Your task to perform on an android device: toggle location history Image 0: 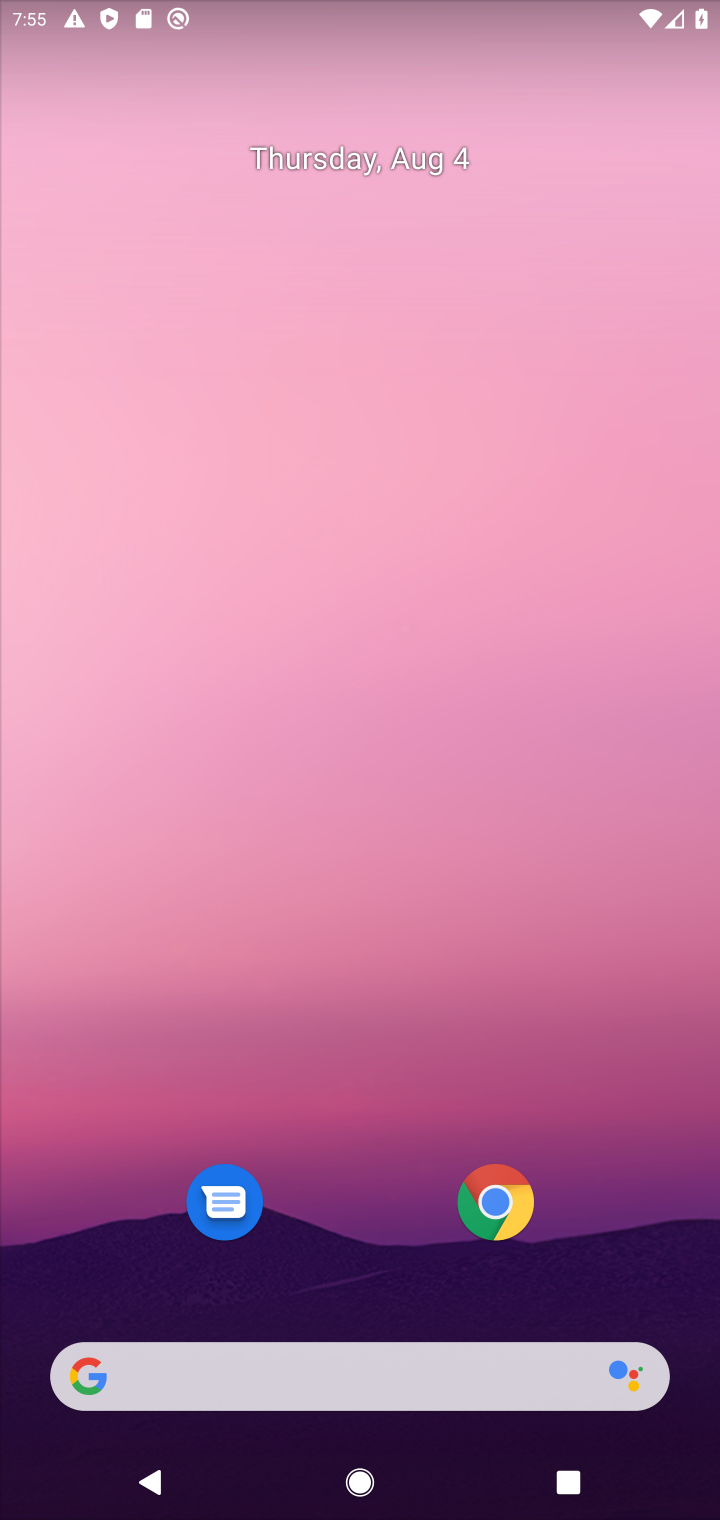
Step 0: drag from (354, 1273) to (350, 396)
Your task to perform on an android device: toggle location history Image 1: 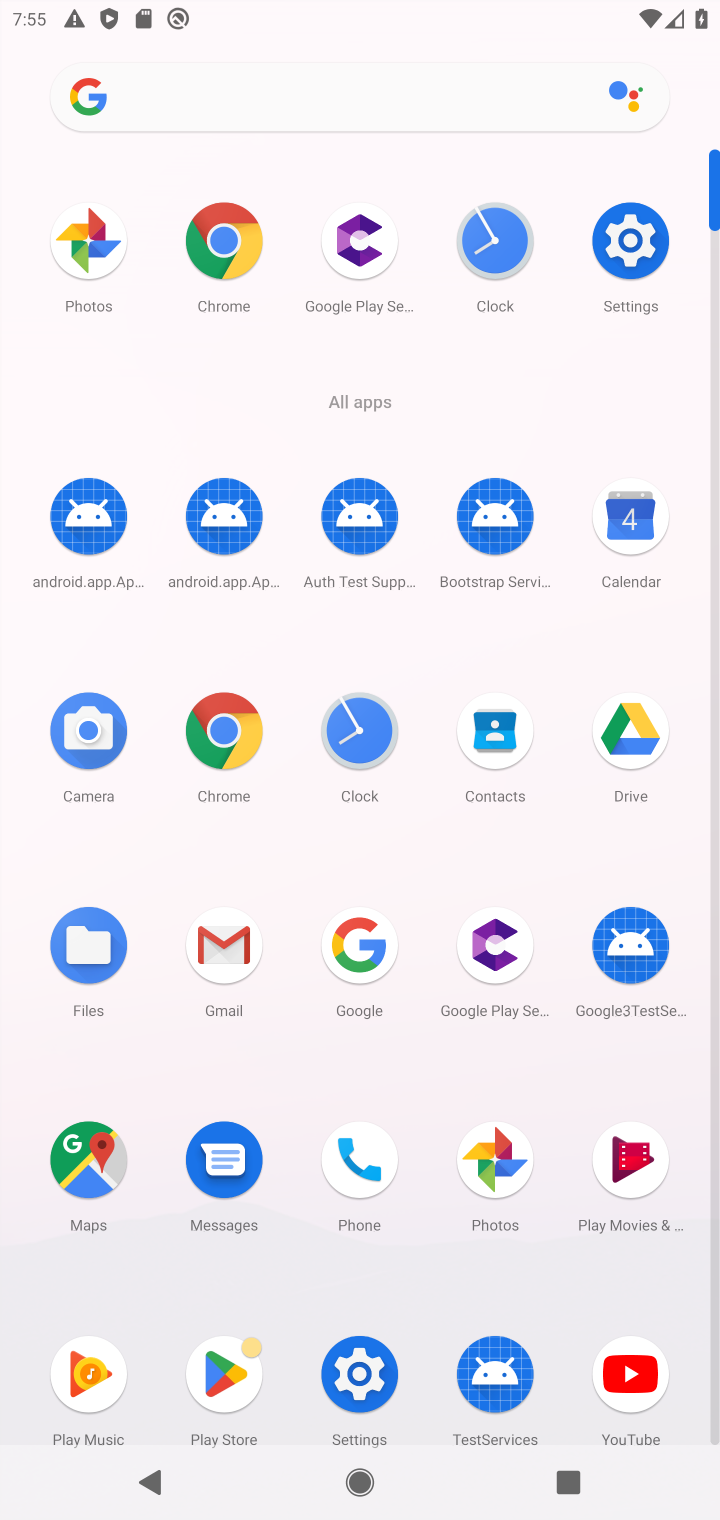
Step 1: click (640, 235)
Your task to perform on an android device: toggle location history Image 2: 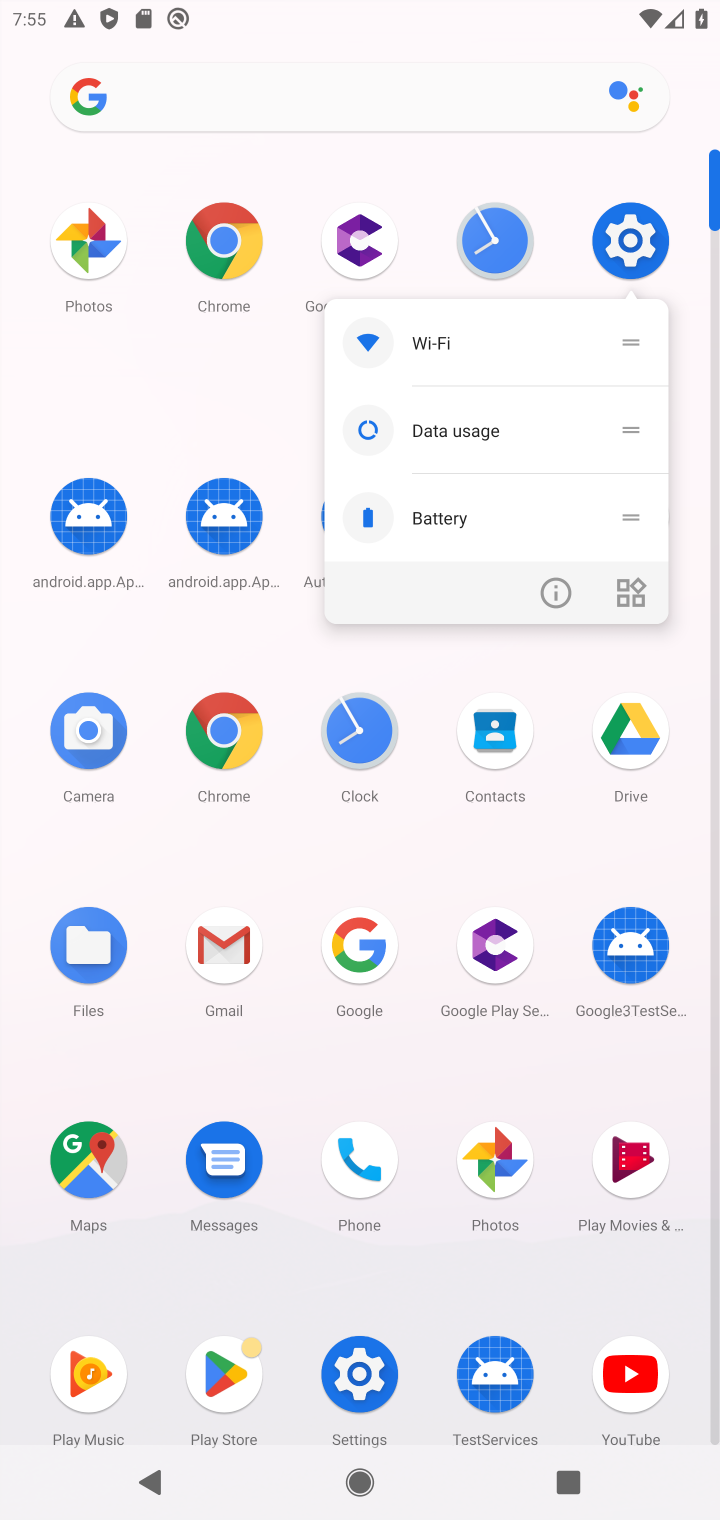
Step 2: click (622, 240)
Your task to perform on an android device: toggle location history Image 3: 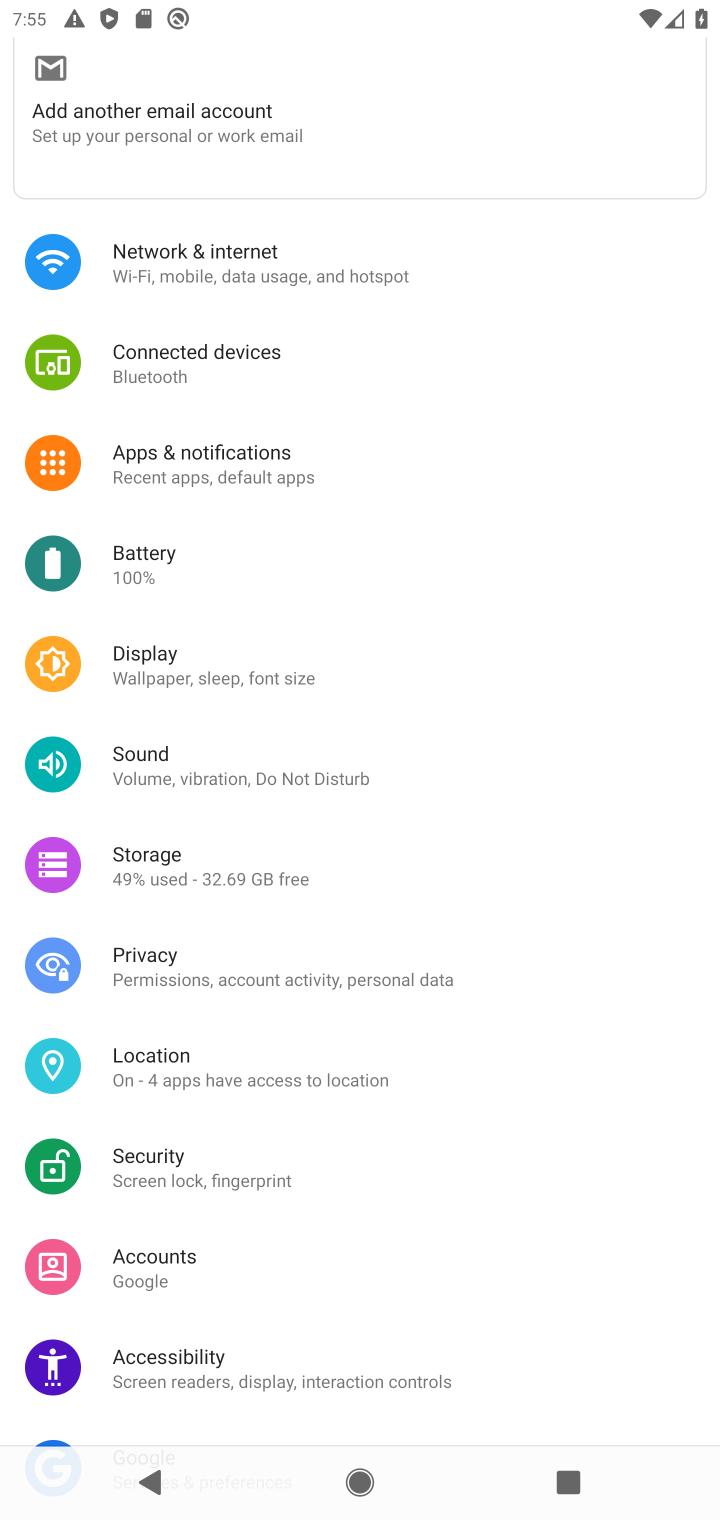
Step 3: drag from (214, 903) to (243, 468)
Your task to perform on an android device: toggle location history Image 4: 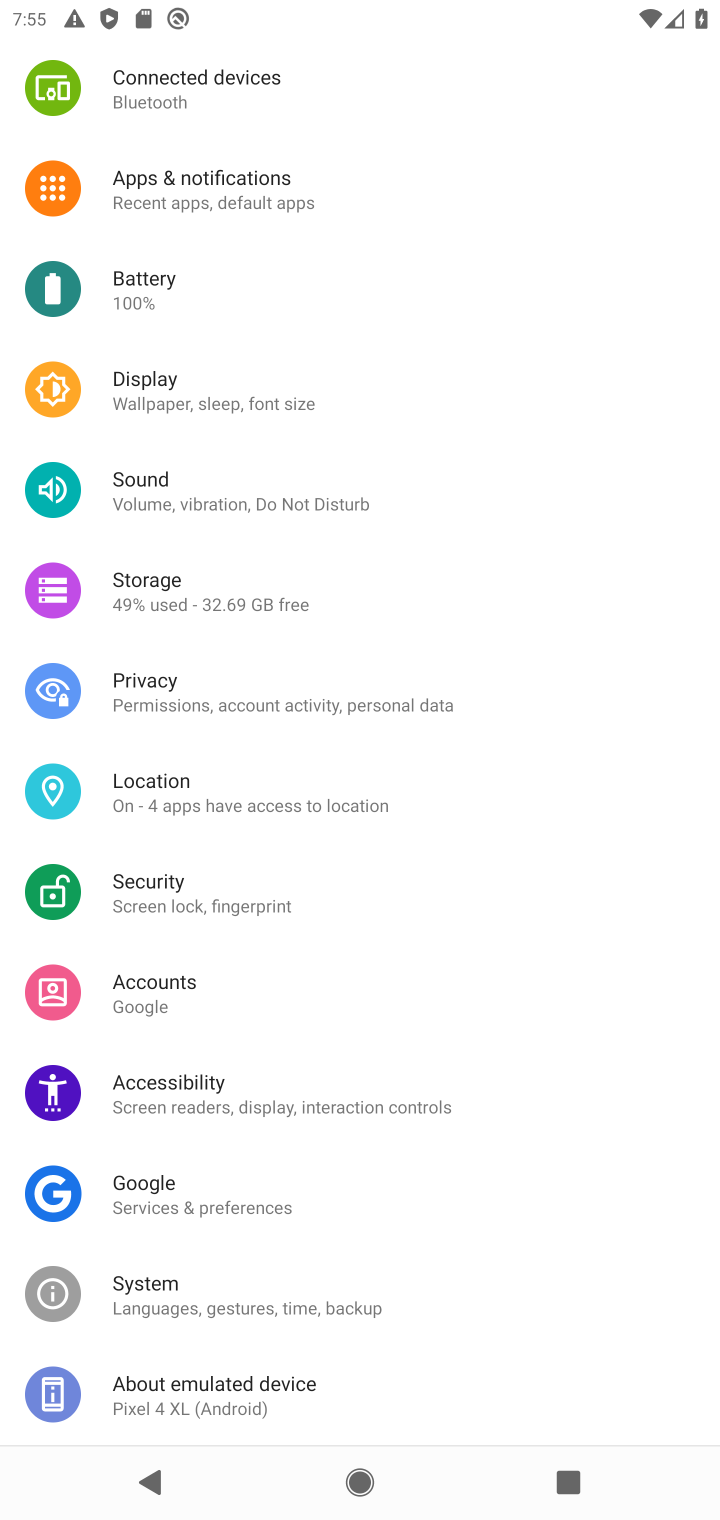
Step 4: click (203, 795)
Your task to perform on an android device: toggle location history Image 5: 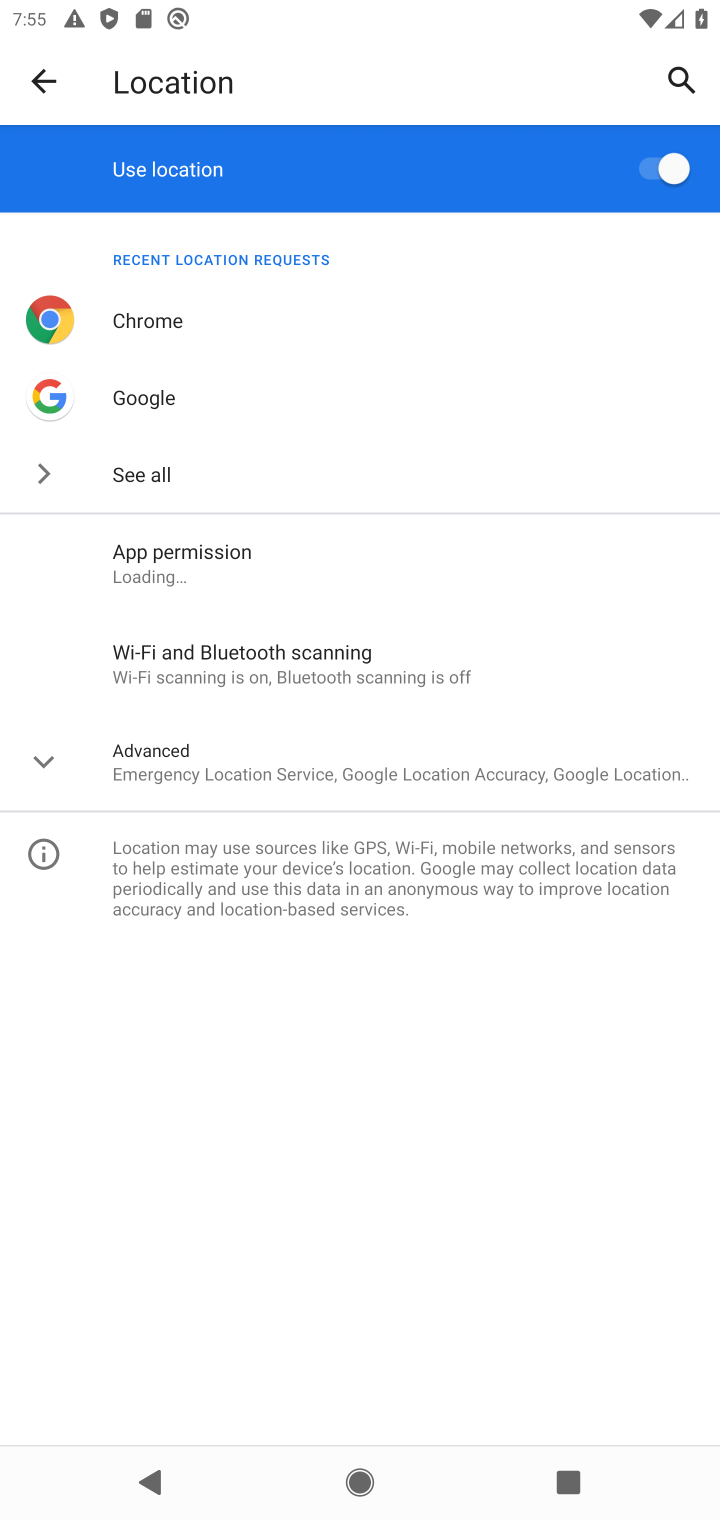
Step 5: click (222, 734)
Your task to perform on an android device: toggle location history Image 6: 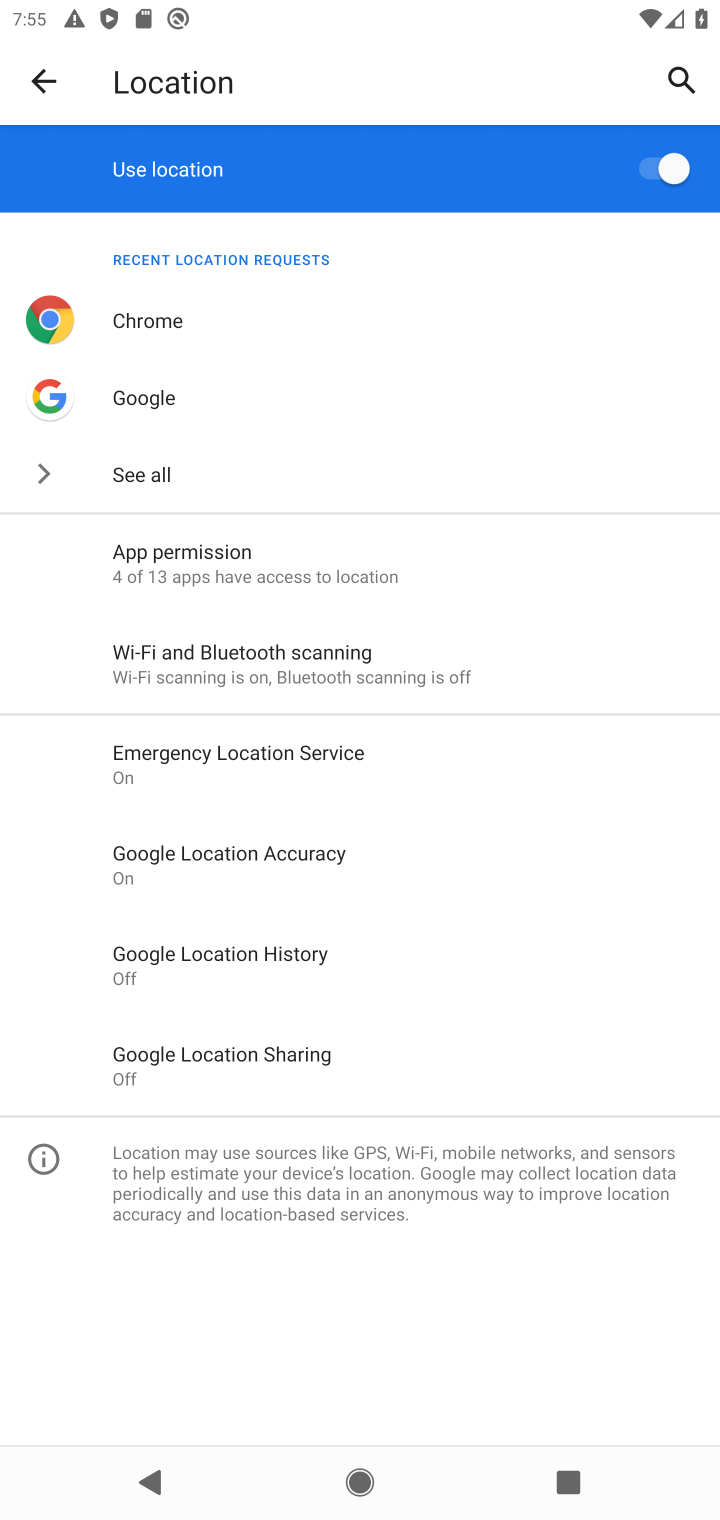
Step 6: click (276, 949)
Your task to perform on an android device: toggle location history Image 7: 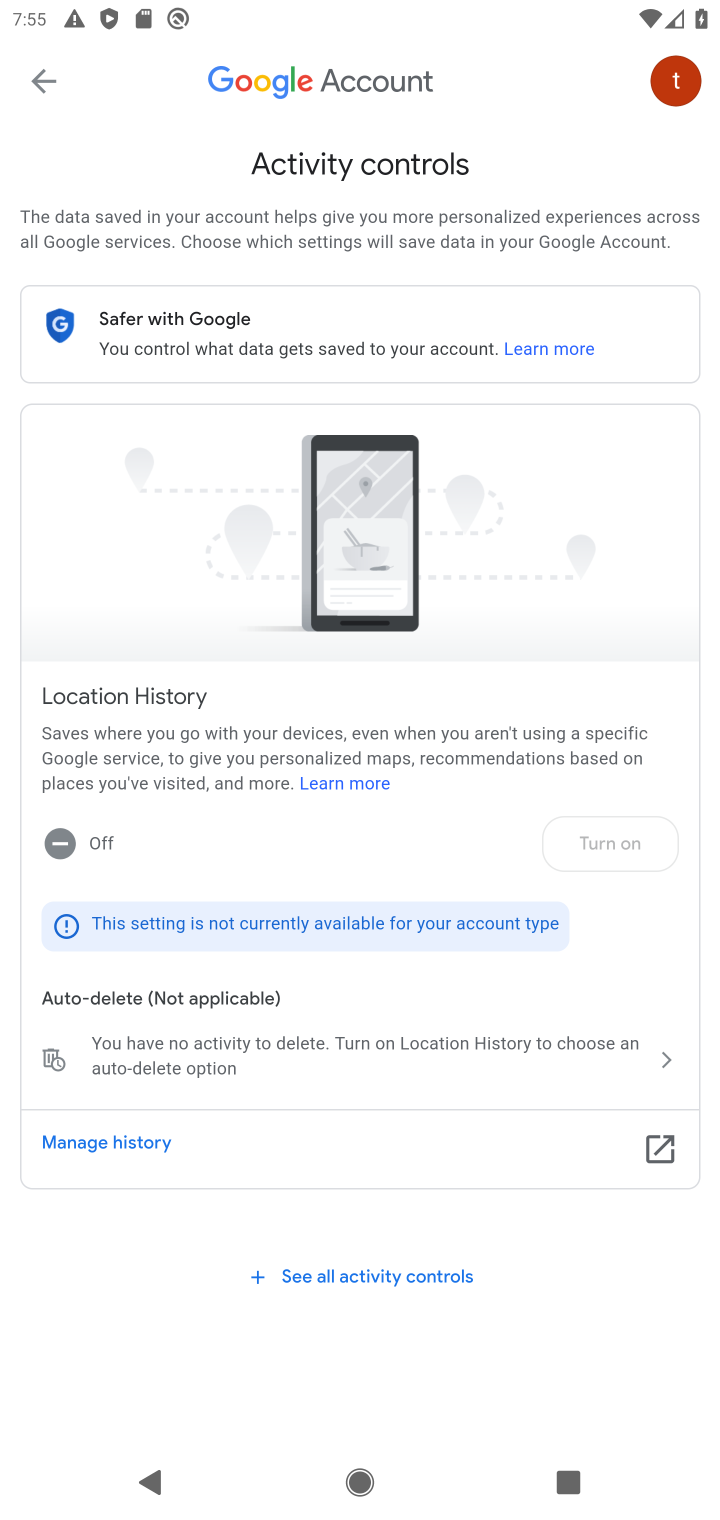
Step 7: click (615, 842)
Your task to perform on an android device: toggle location history Image 8: 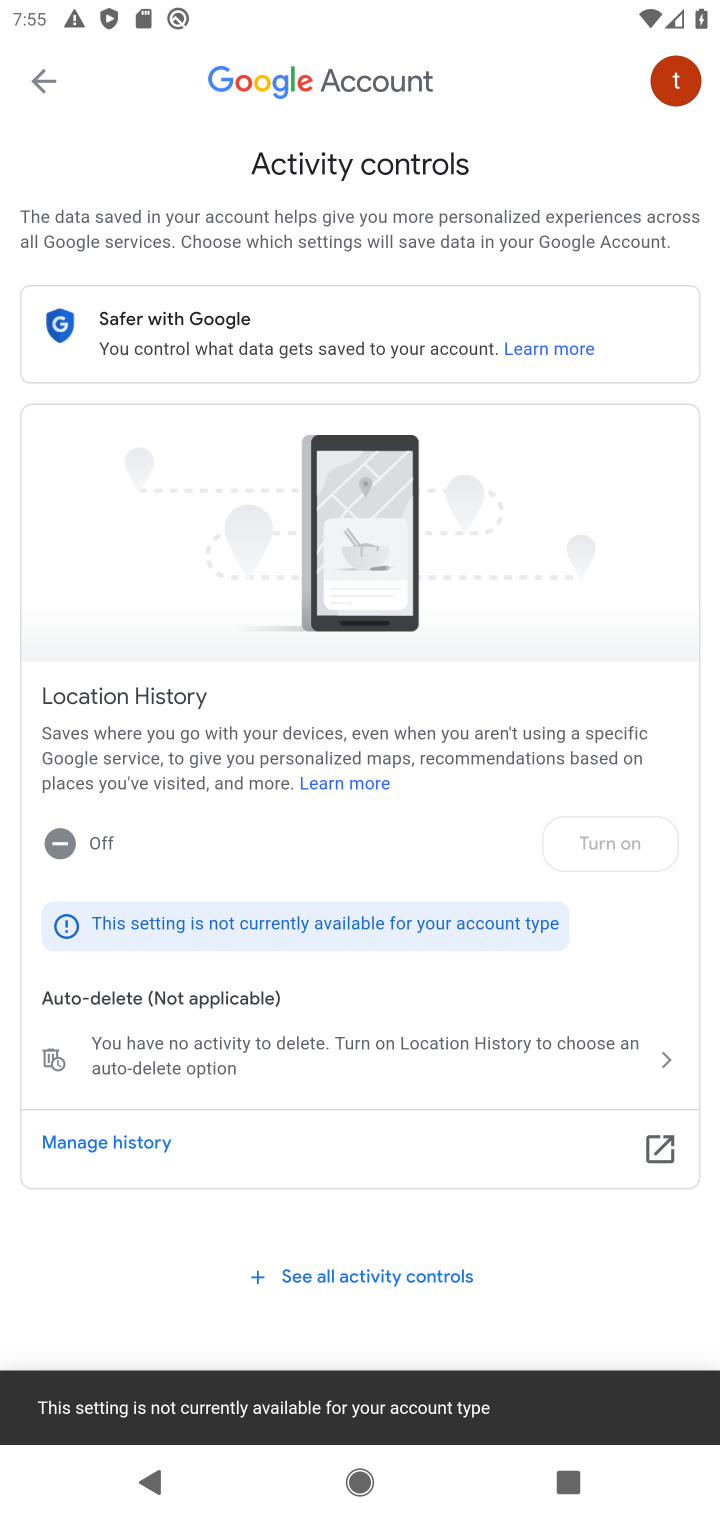
Step 8: task complete